Your task to perform on an android device: Open settings on Google Maps Image 0: 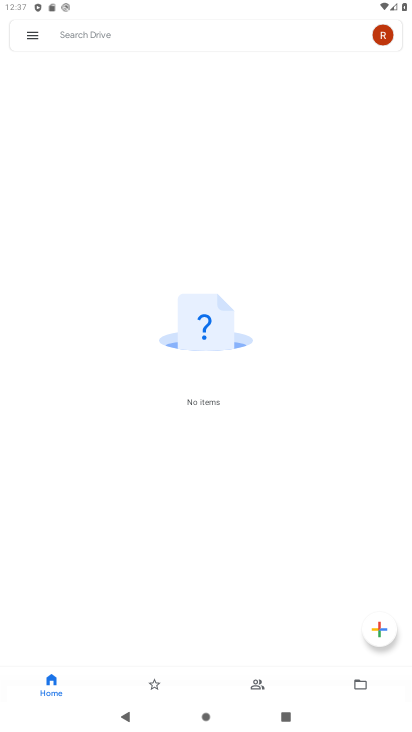
Step 0: press home button
Your task to perform on an android device: Open settings on Google Maps Image 1: 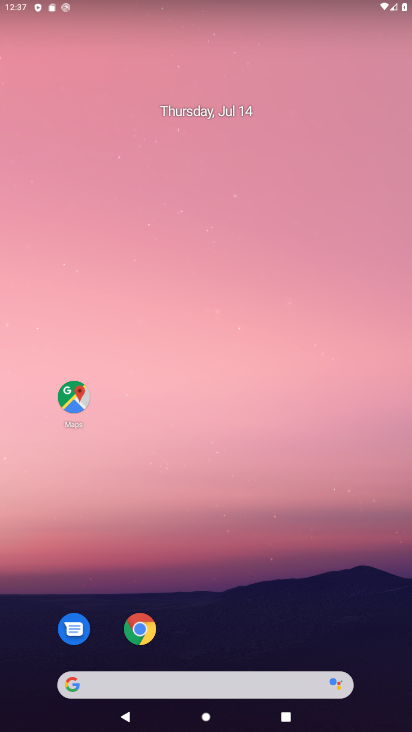
Step 1: click (75, 399)
Your task to perform on an android device: Open settings on Google Maps Image 2: 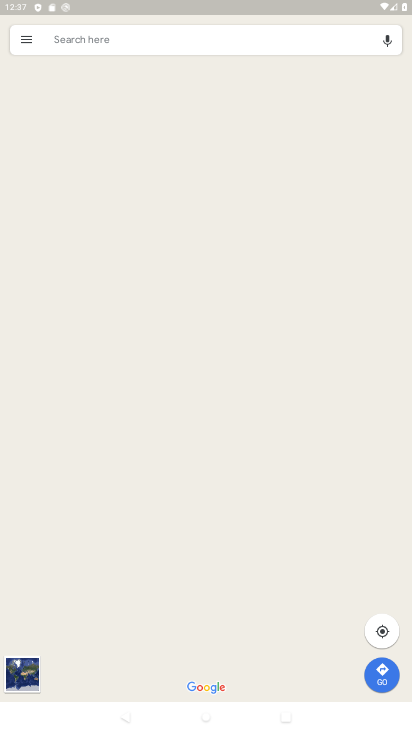
Step 2: click (24, 42)
Your task to perform on an android device: Open settings on Google Maps Image 3: 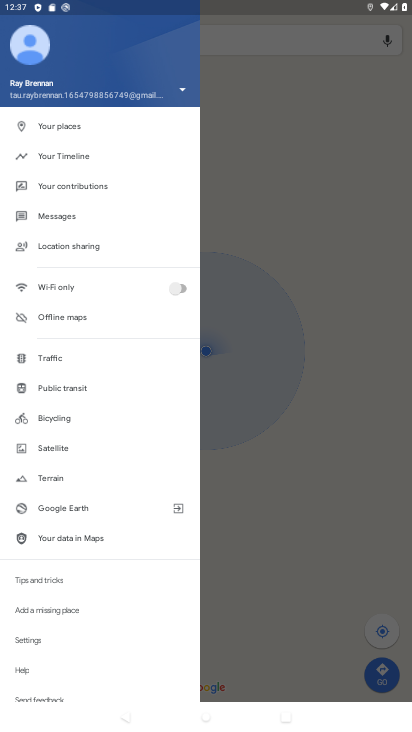
Step 3: click (32, 636)
Your task to perform on an android device: Open settings on Google Maps Image 4: 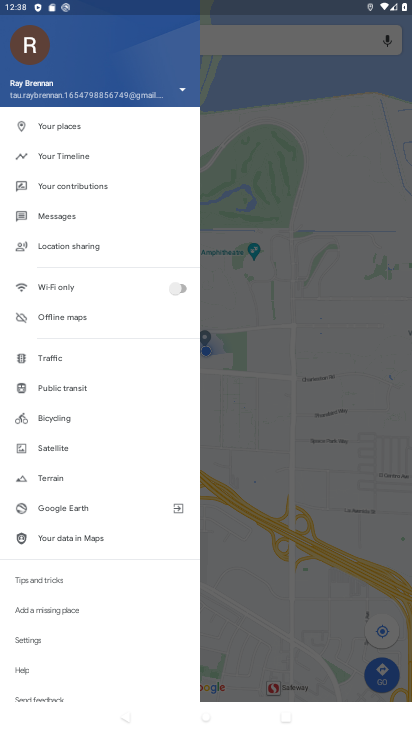
Step 4: click (33, 637)
Your task to perform on an android device: Open settings on Google Maps Image 5: 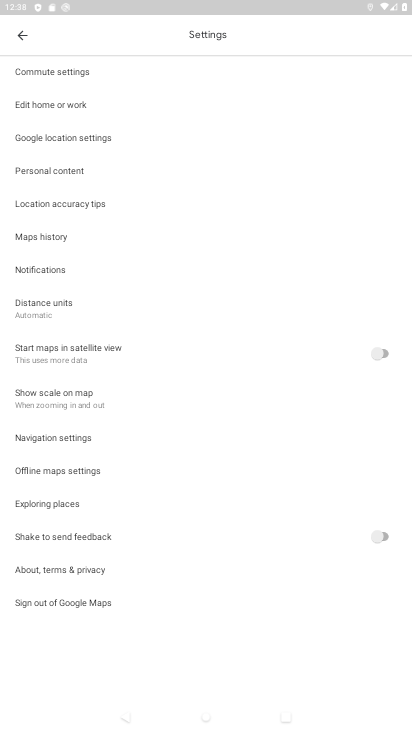
Step 5: task complete